Your task to perform on an android device: toggle improve location accuracy Image 0: 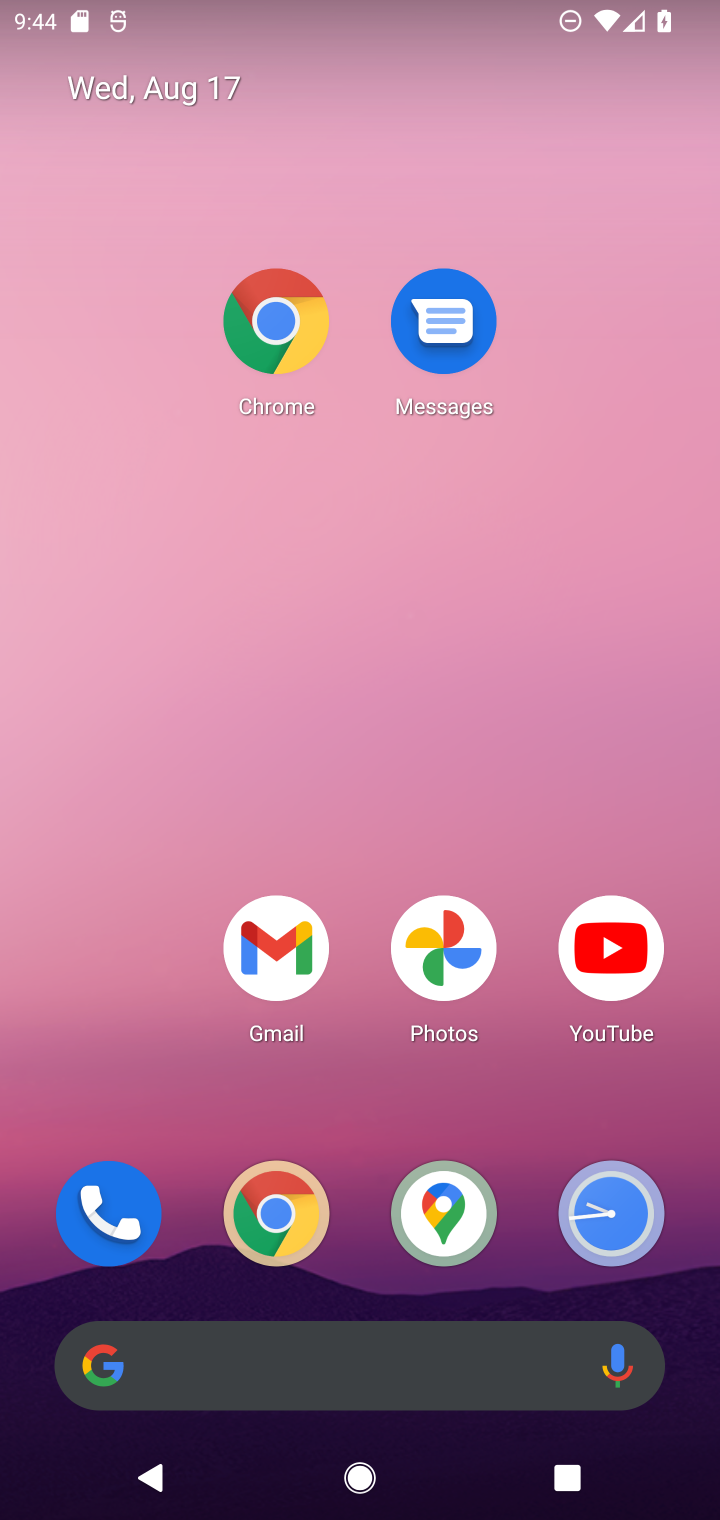
Step 0: drag from (375, 1293) to (383, 351)
Your task to perform on an android device: toggle improve location accuracy Image 1: 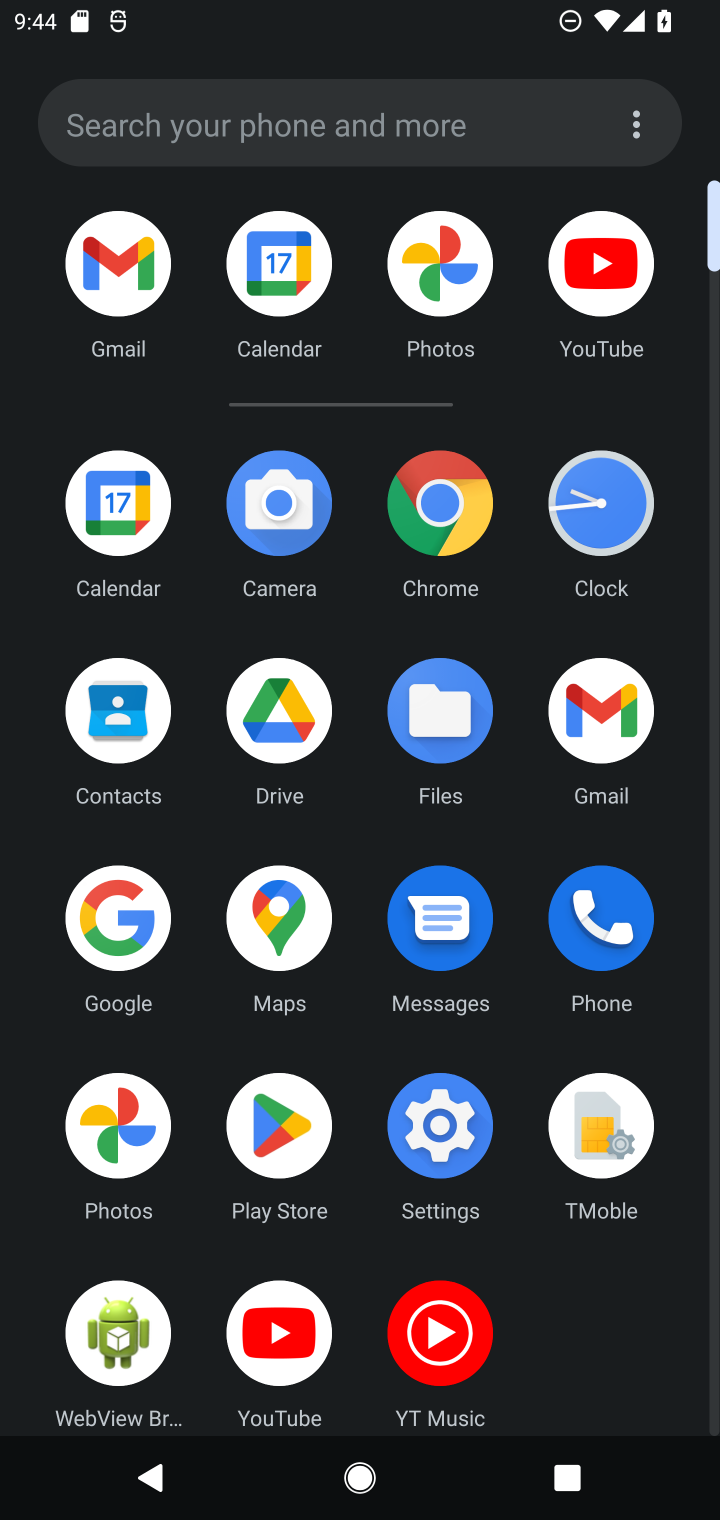
Step 1: click (420, 1143)
Your task to perform on an android device: toggle improve location accuracy Image 2: 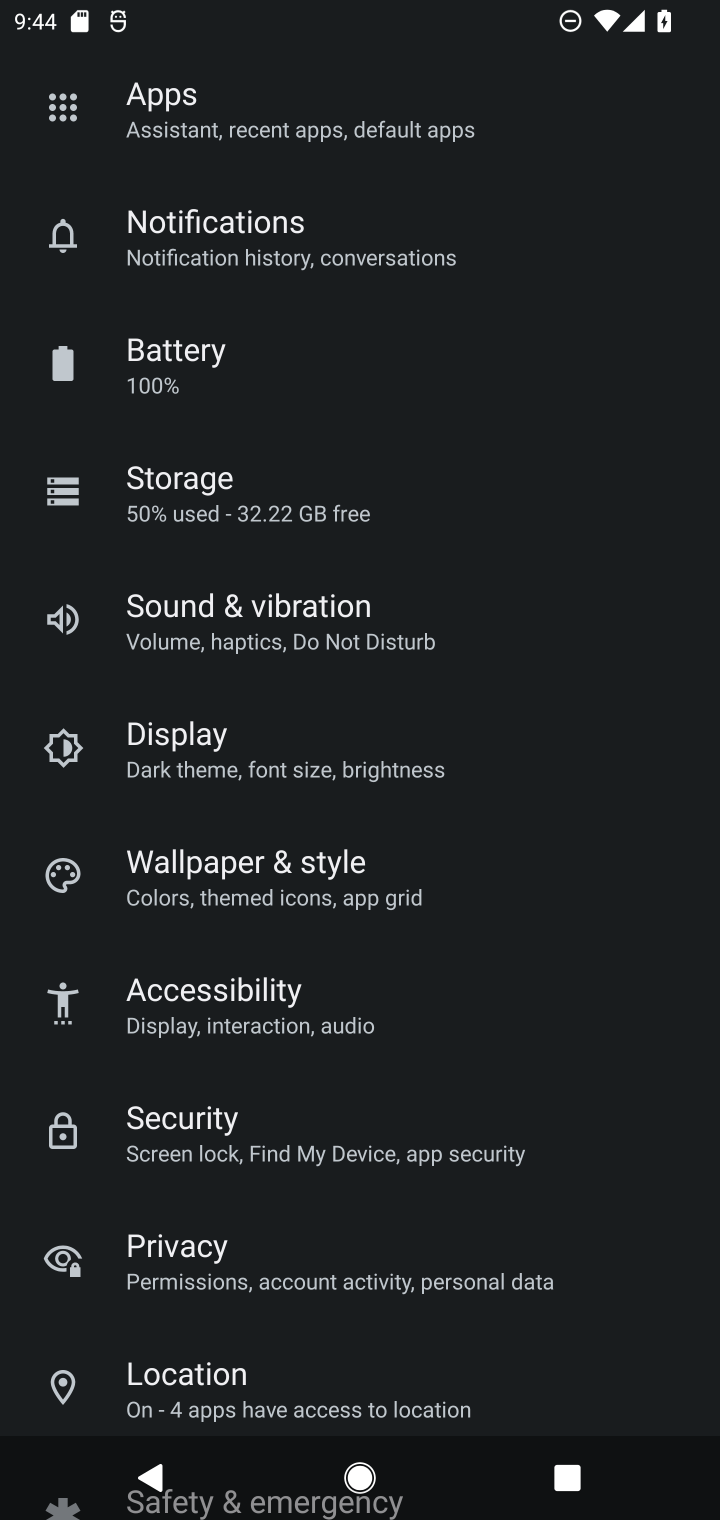
Step 2: click (382, 1367)
Your task to perform on an android device: toggle improve location accuracy Image 3: 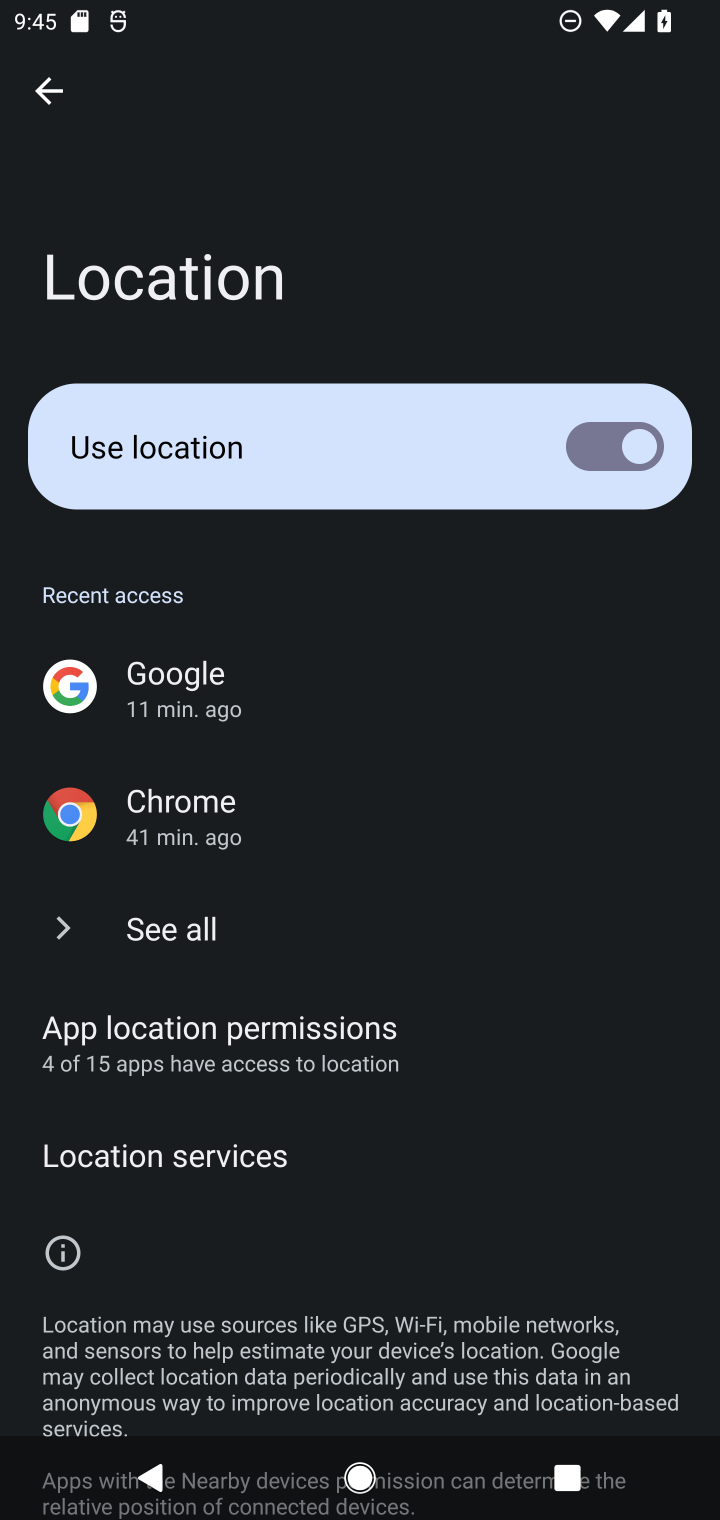
Step 3: task complete